Your task to perform on an android device: Open Youtube and go to "Your channel" Image 0: 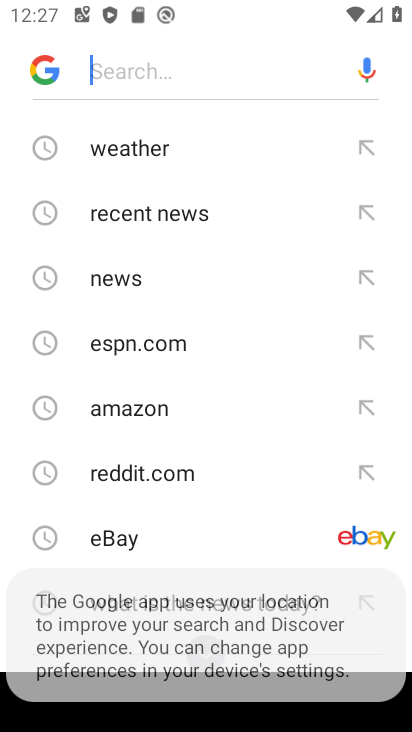
Step 0: press home button
Your task to perform on an android device: Open Youtube and go to "Your channel" Image 1: 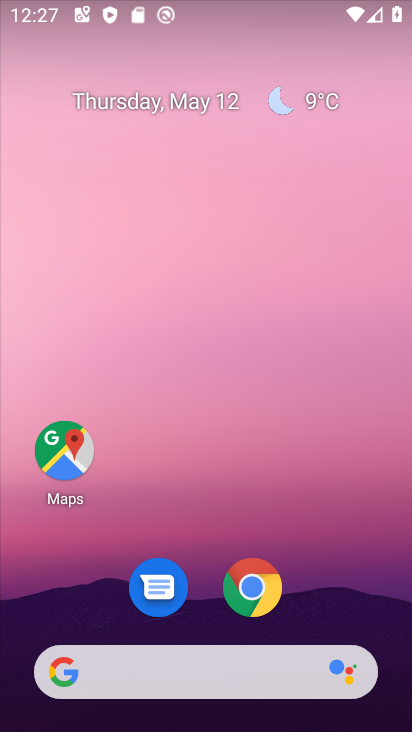
Step 1: drag from (194, 614) to (222, 0)
Your task to perform on an android device: Open Youtube and go to "Your channel" Image 2: 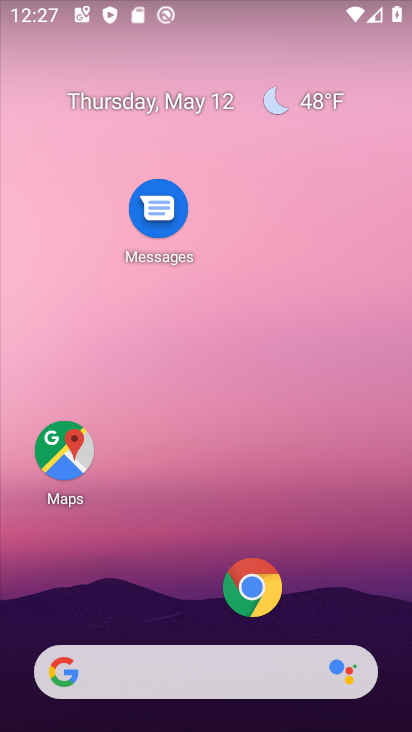
Step 2: drag from (162, 625) to (160, 4)
Your task to perform on an android device: Open Youtube and go to "Your channel" Image 3: 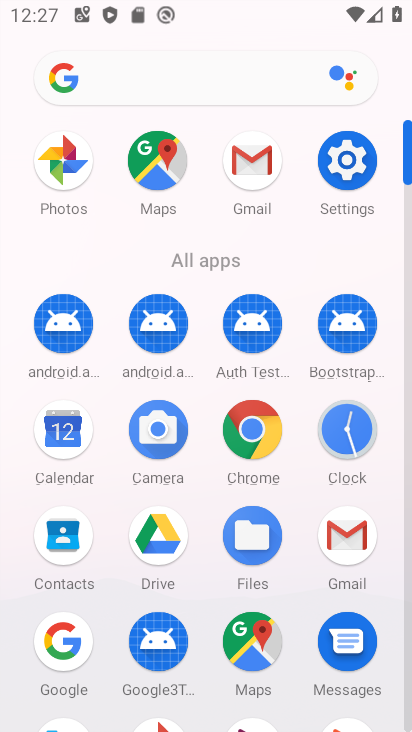
Step 3: drag from (206, 612) to (140, 115)
Your task to perform on an android device: Open Youtube and go to "Your channel" Image 4: 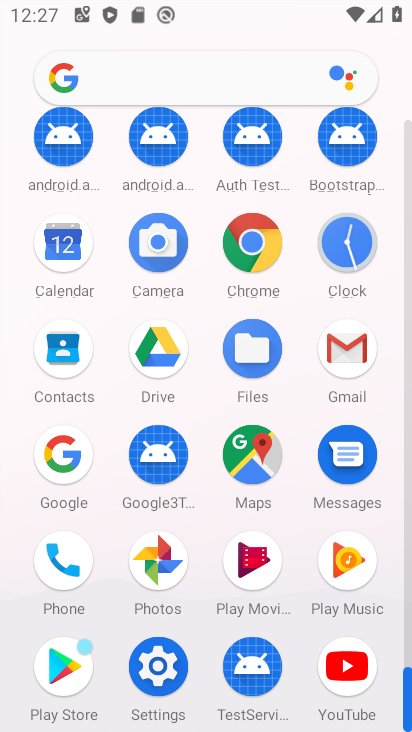
Step 4: click (337, 672)
Your task to perform on an android device: Open Youtube and go to "Your channel" Image 5: 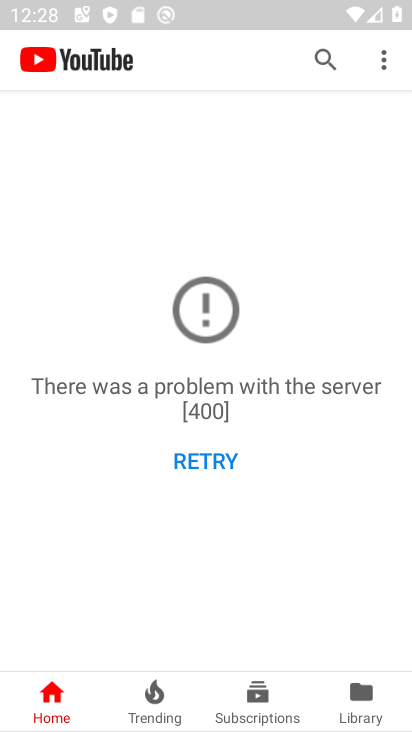
Step 5: click (207, 447)
Your task to perform on an android device: Open Youtube and go to "Your channel" Image 6: 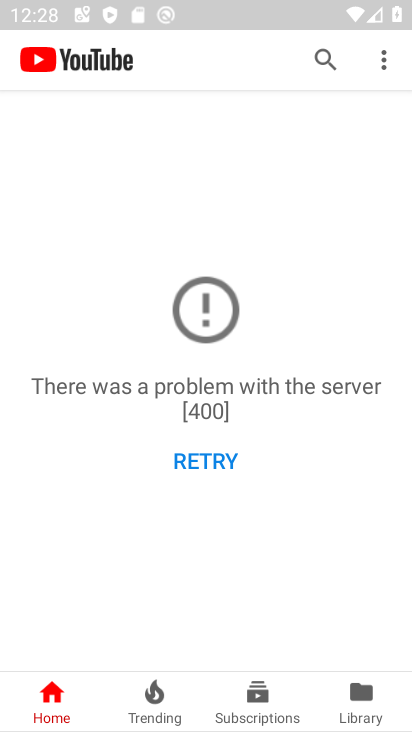
Step 6: click (207, 447)
Your task to perform on an android device: Open Youtube and go to "Your channel" Image 7: 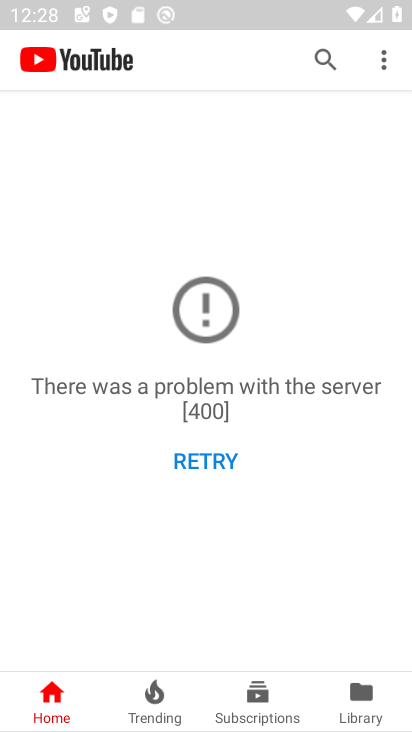
Step 7: click (394, 68)
Your task to perform on an android device: Open Youtube and go to "Your channel" Image 8: 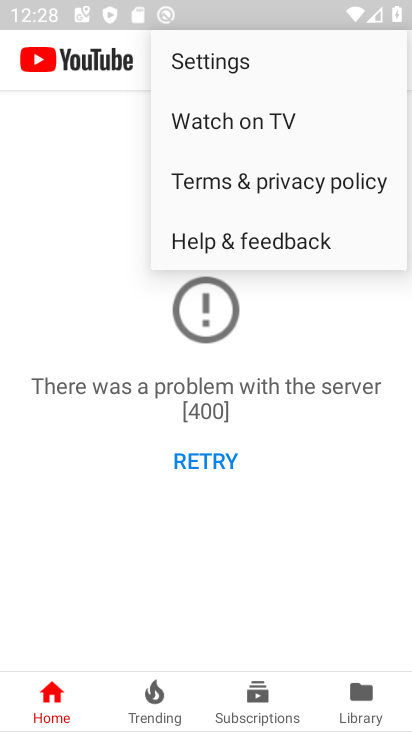
Step 8: click (238, 58)
Your task to perform on an android device: Open Youtube and go to "Your channel" Image 9: 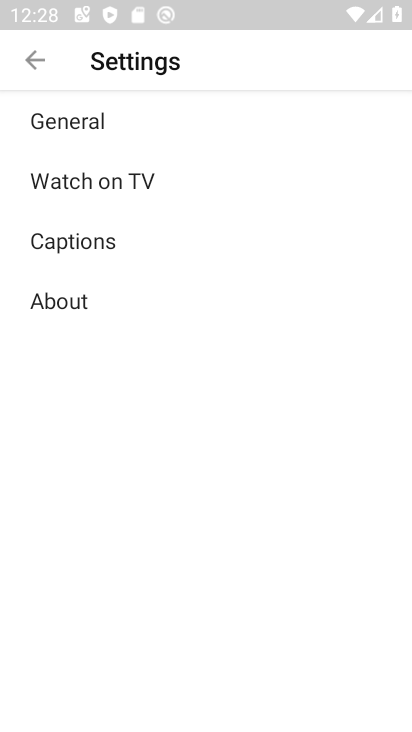
Step 9: task complete